Your task to perform on an android device: turn off data saver in the chrome app Image 0: 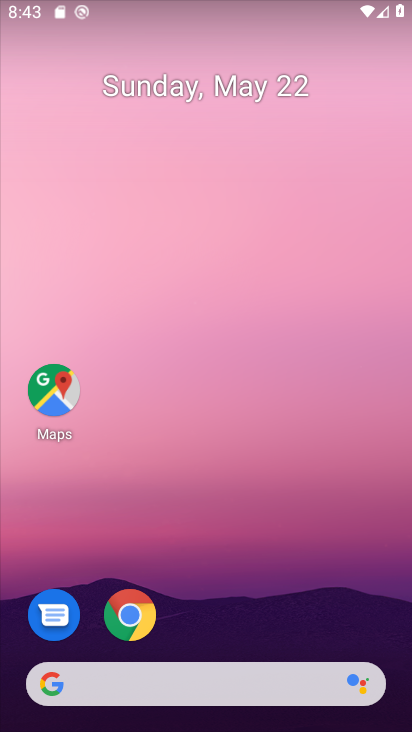
Step 0: click (135, 632)
Your task to perform on an android device: turn off data saver in the chrome app Image 1: 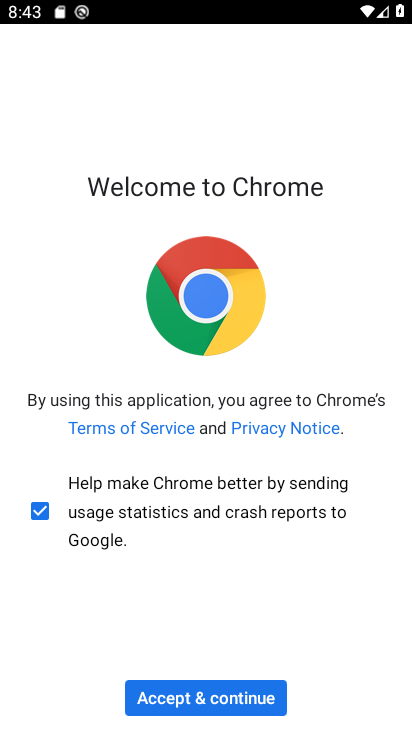
Step 1: click (180, 705)
Your task to perform on an android device: turn off data saver in the chrome app Image 2: 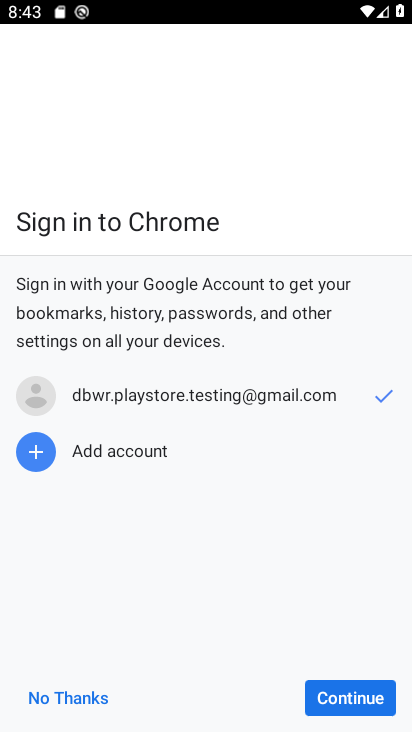
Step 2: click (348, 694)
Your task to perform on an android device: turn off data saver in the chrome app Image 3: 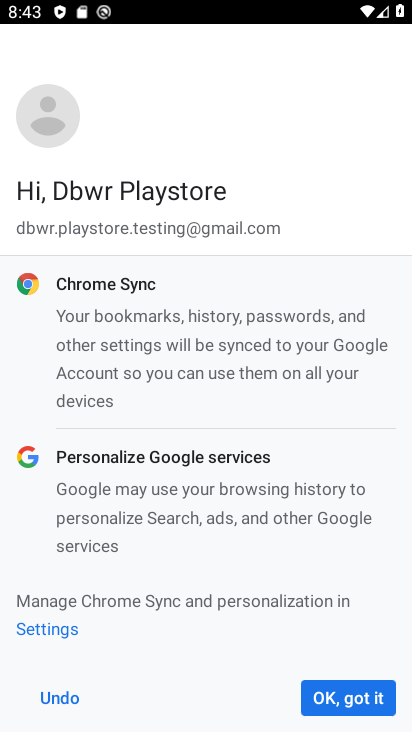
Step 3: click (345, 696)
Your task to perform on an android device: turn off data saver in the chrome app Image 4: 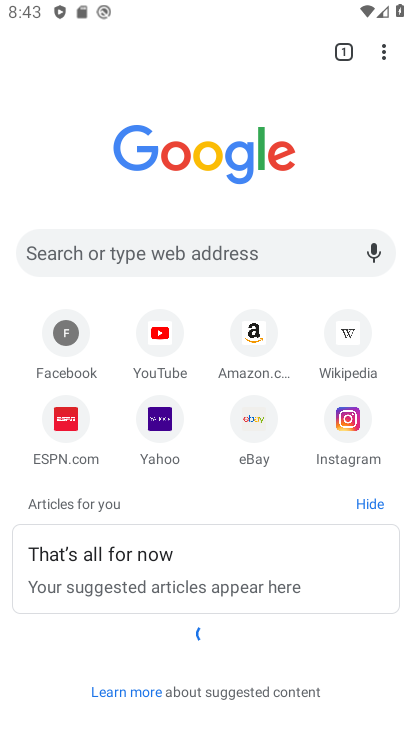
Step 4: drag from (384, 51) to (230, 431)
Your task to perform on an android device: turn off data saver in the chrome app Image 5: 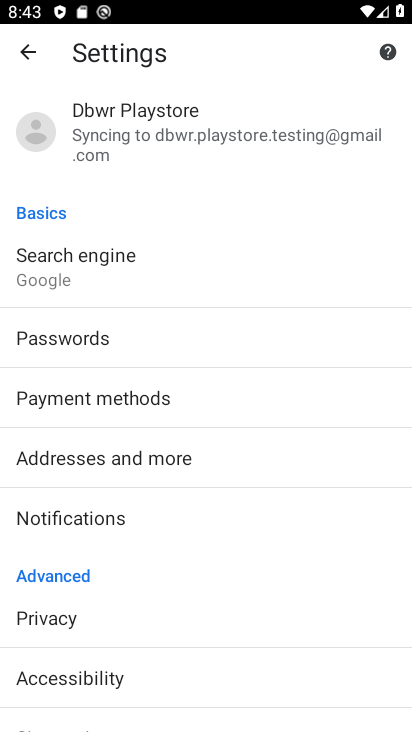
Step 5: drag from (100, 654) to (126, 232)
Your task to perform on an android device: turn off data saver in the chrome app Image 6: 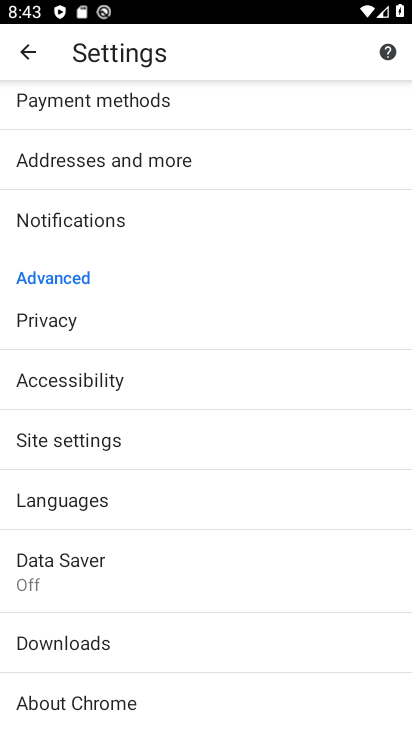
Step 6: click (96, 586)
Your task to perform on an android device: turn off data saver in the chrome app Image 7: 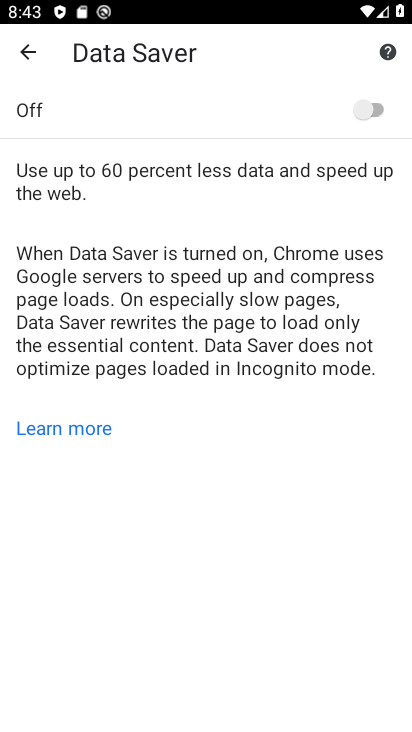
Step 7: task complete